Your task to perform on an android device: Go to Reddit.com Image 0: 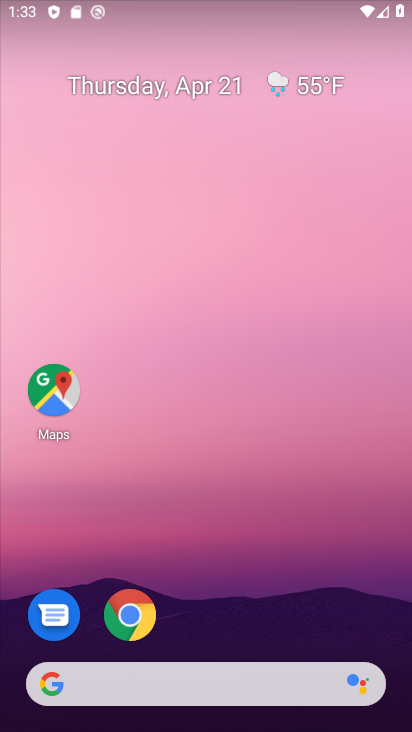
Step 0: drag from (205, 640) to (205, 291)
Your task to perform on an android device: Go to Reddit.com Image 1: 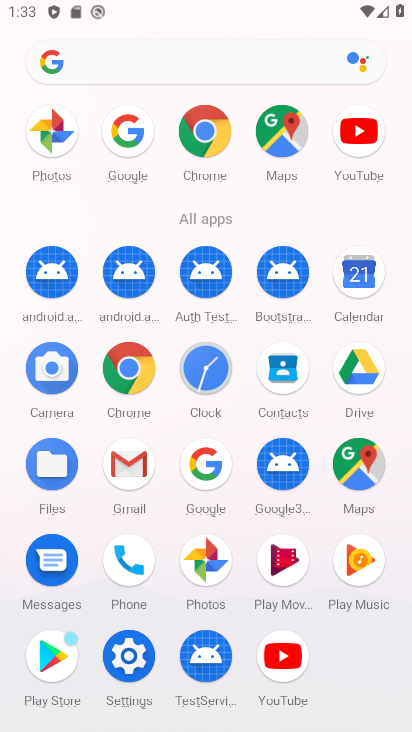
Step 1: click (204, 468)
Your task to perform on an android device: Go to Reddit.com Image 2: 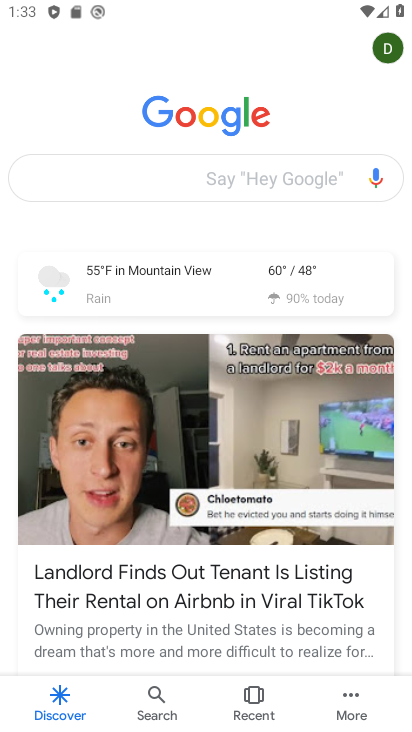
Step 2: click (143, 184)
Your task to perform on an android device: Go to Reddit.com Image 3: 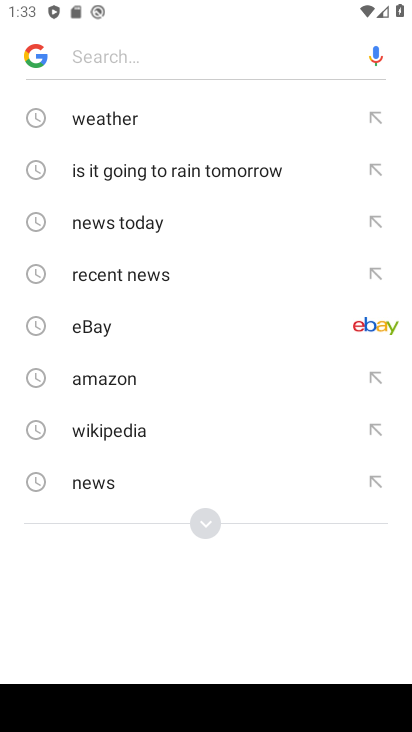
Step 3: type "Reddit.com"
Your task to perform on an android device: Go to Reddit.com Image 4: 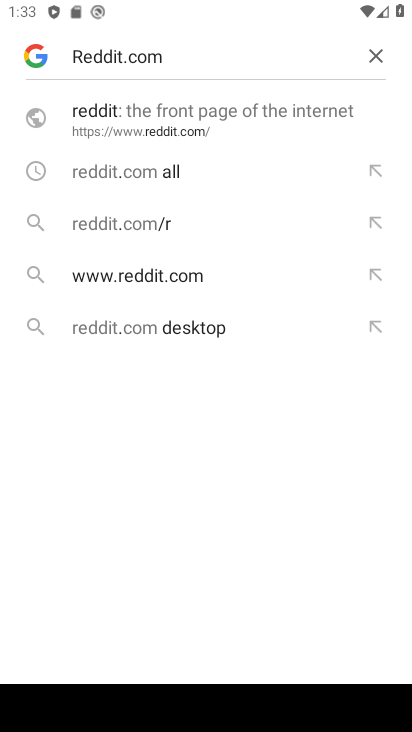
Step 4: click (125, 110)
Your task to perform on an android device: Go to Reddit.com Image 5: 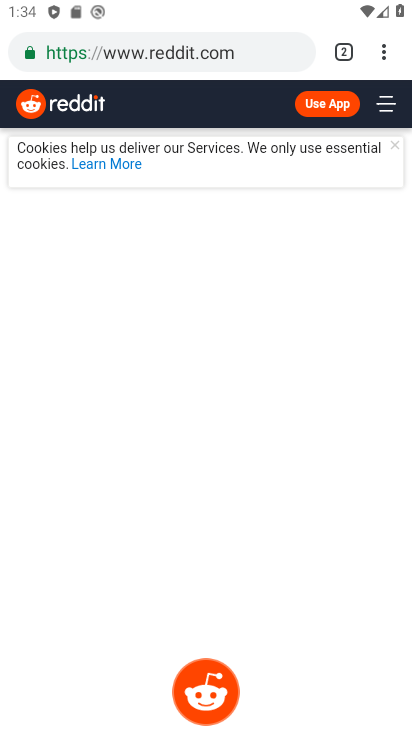
Step 5: task complete